Your task to perform on an android device: Go to settings Image 0: 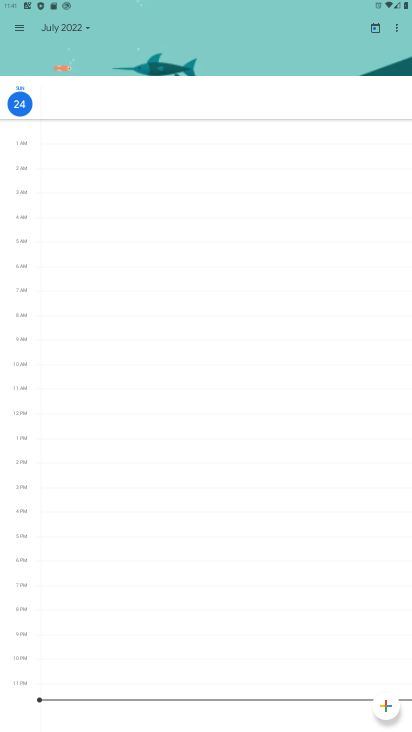
Step 0: press home button
Your task to perform on an android device: Go to settings Image 1: 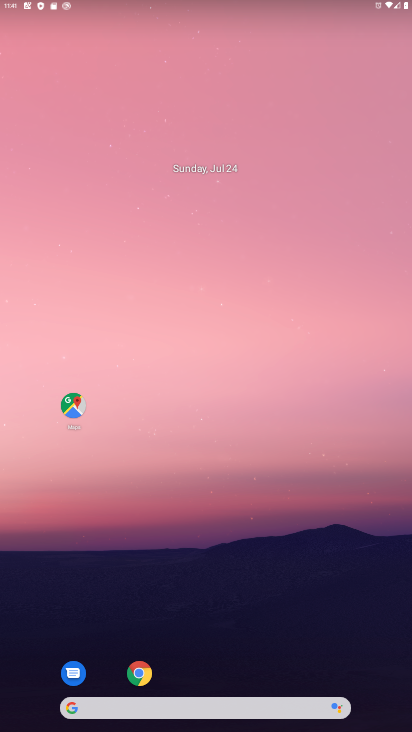
Step 1: drag from (294, 633) to (296, 207)
Your task to perform on an android device: Go to settings Image 2: 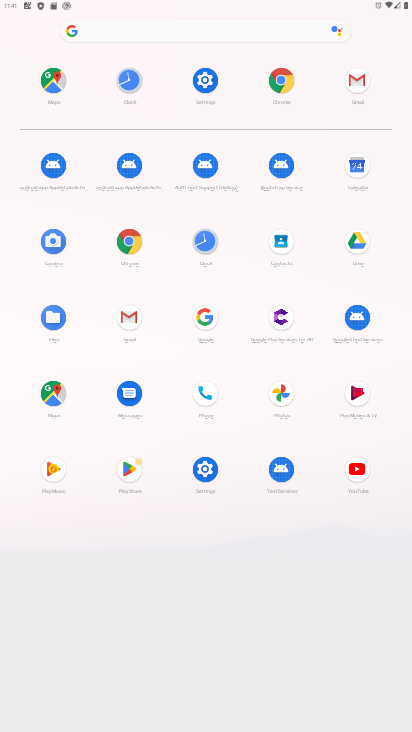
Step 2: click (212, 77)
Your task to perform on an android device: Go to settings Image 3: 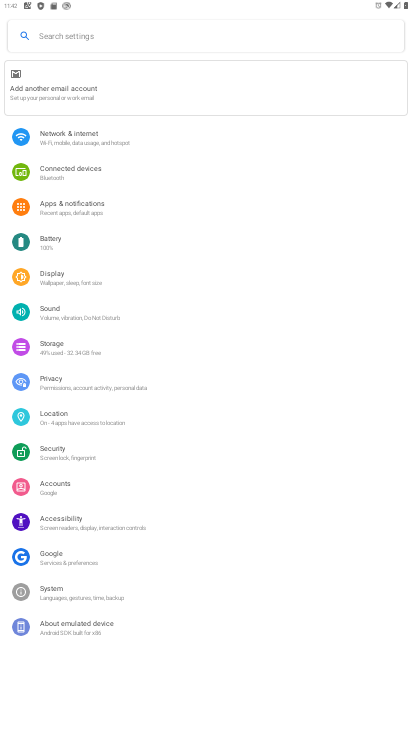
Step 3: task complete